Your task to perform on an android device: Open calendar and show me the first week of next month Image 0: 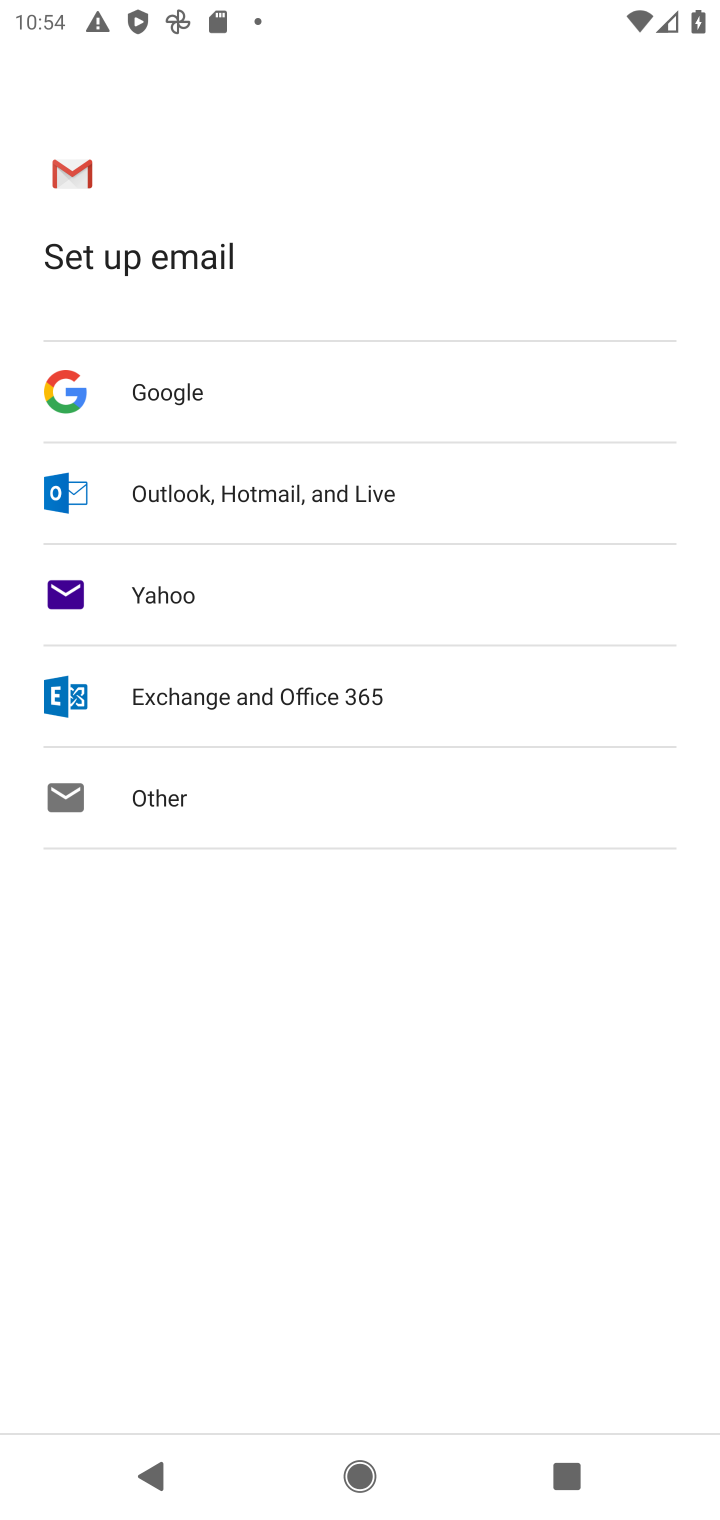
Step 0: press home button
Your task to perform on an android device: Open calendar and show me the first week of next month Image 1: 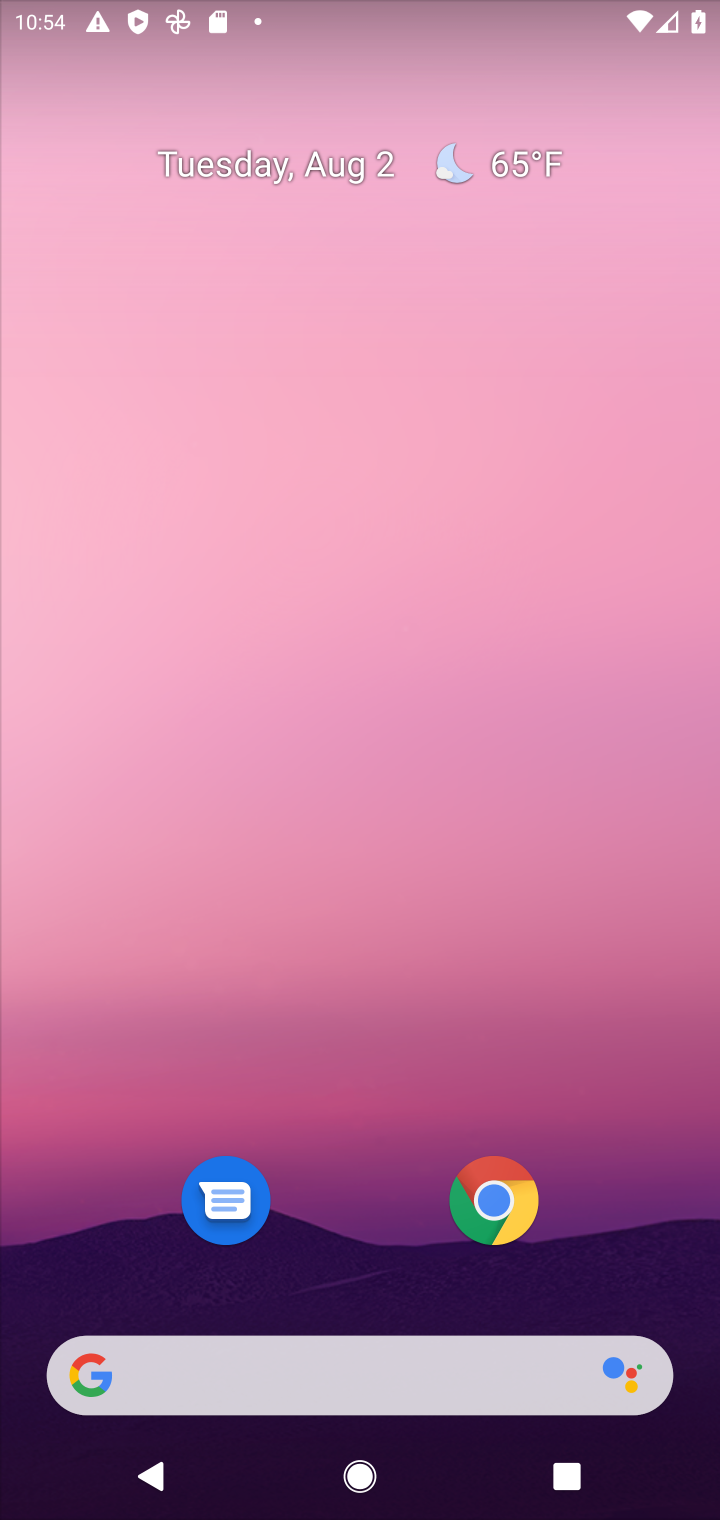
Step 1: drag from (672, 1298) to (574, 381)
Your task to perform on an android device: Open calendar and show me the first week of next month Image 2: 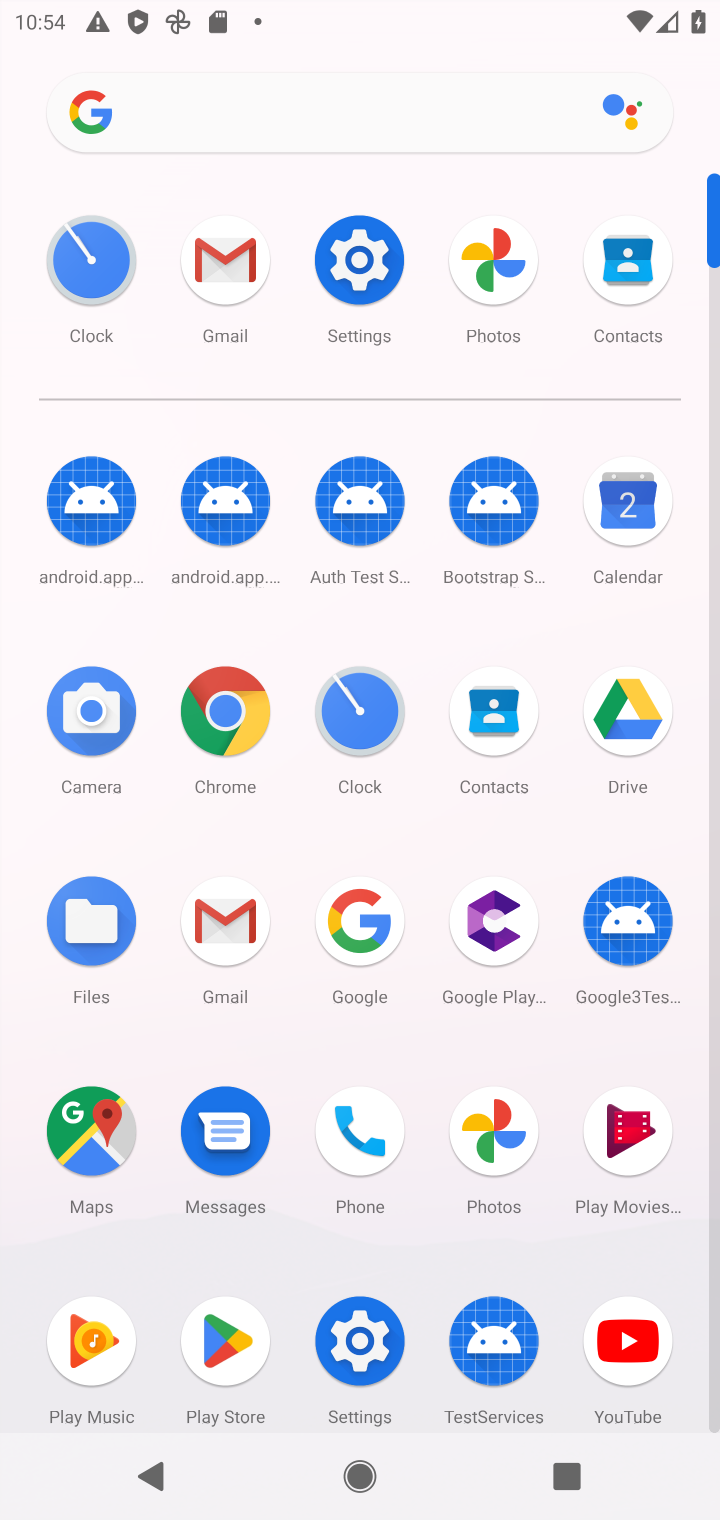
Step 2: click (635, 503)
Your task to perform on an android device: Open calendar and show me the first week of next month Image 3: 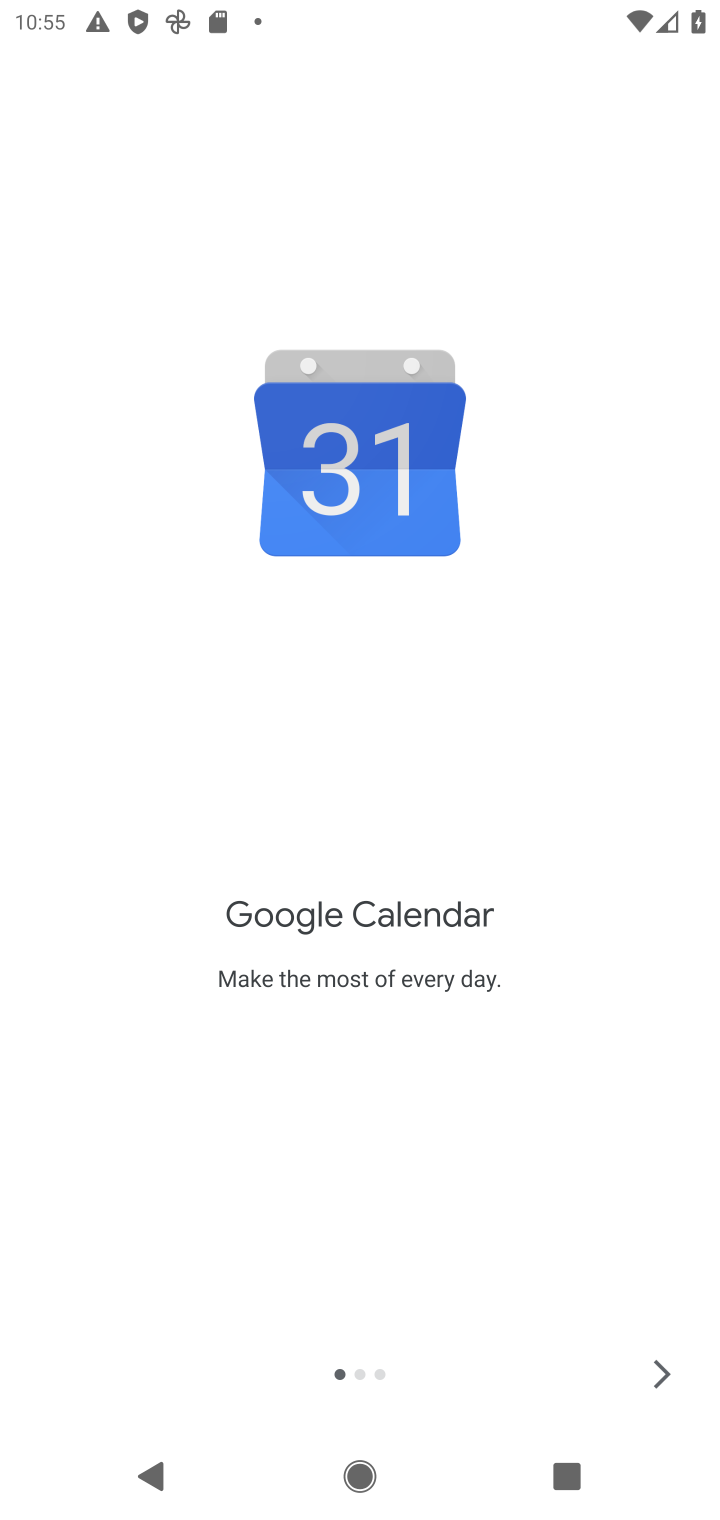
Step 3: click (656, 1371)
Your task to perform on an android device: Open calendar and show me the first week of next month Image 4: 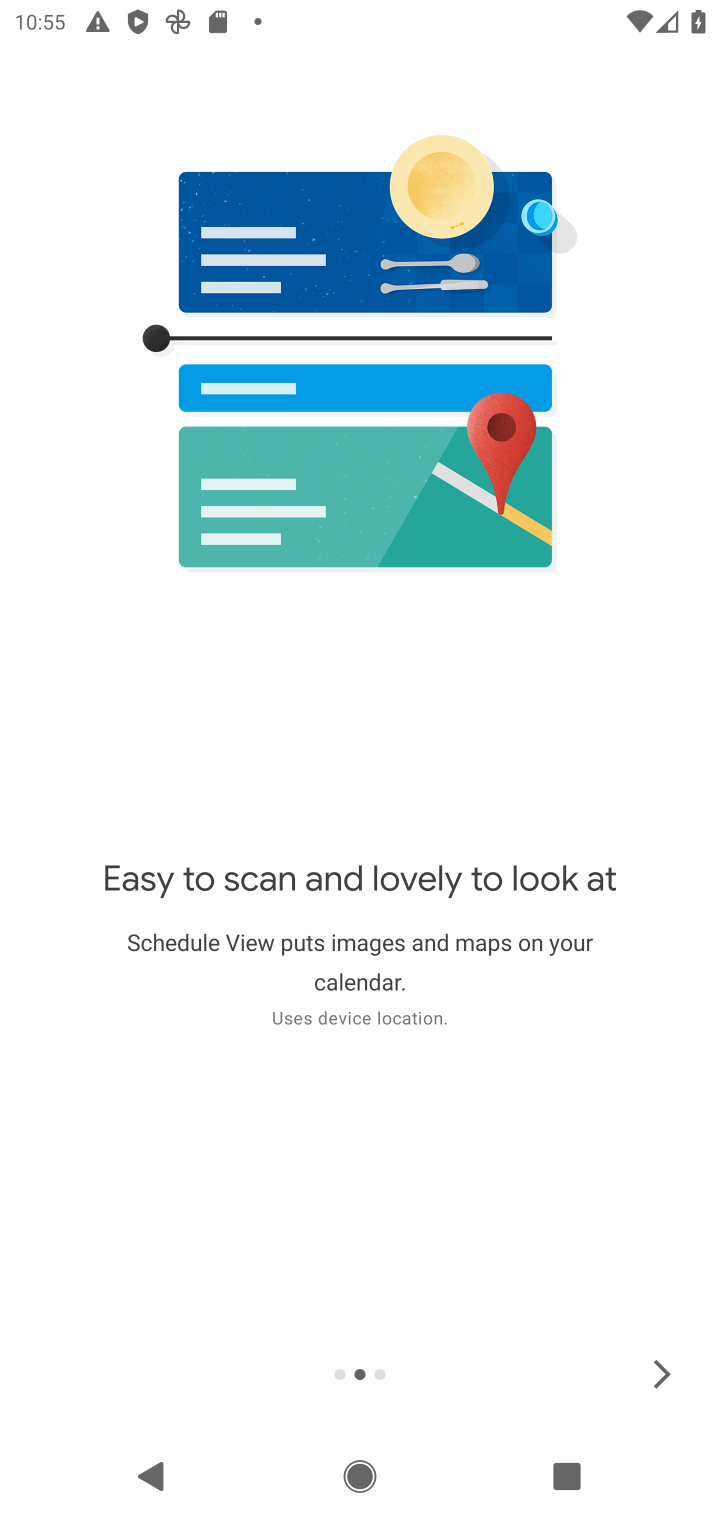
Step 4: click (656, 1371)
Your task to perform on an android device: Open calendar and show me the first week of next month Image 5: 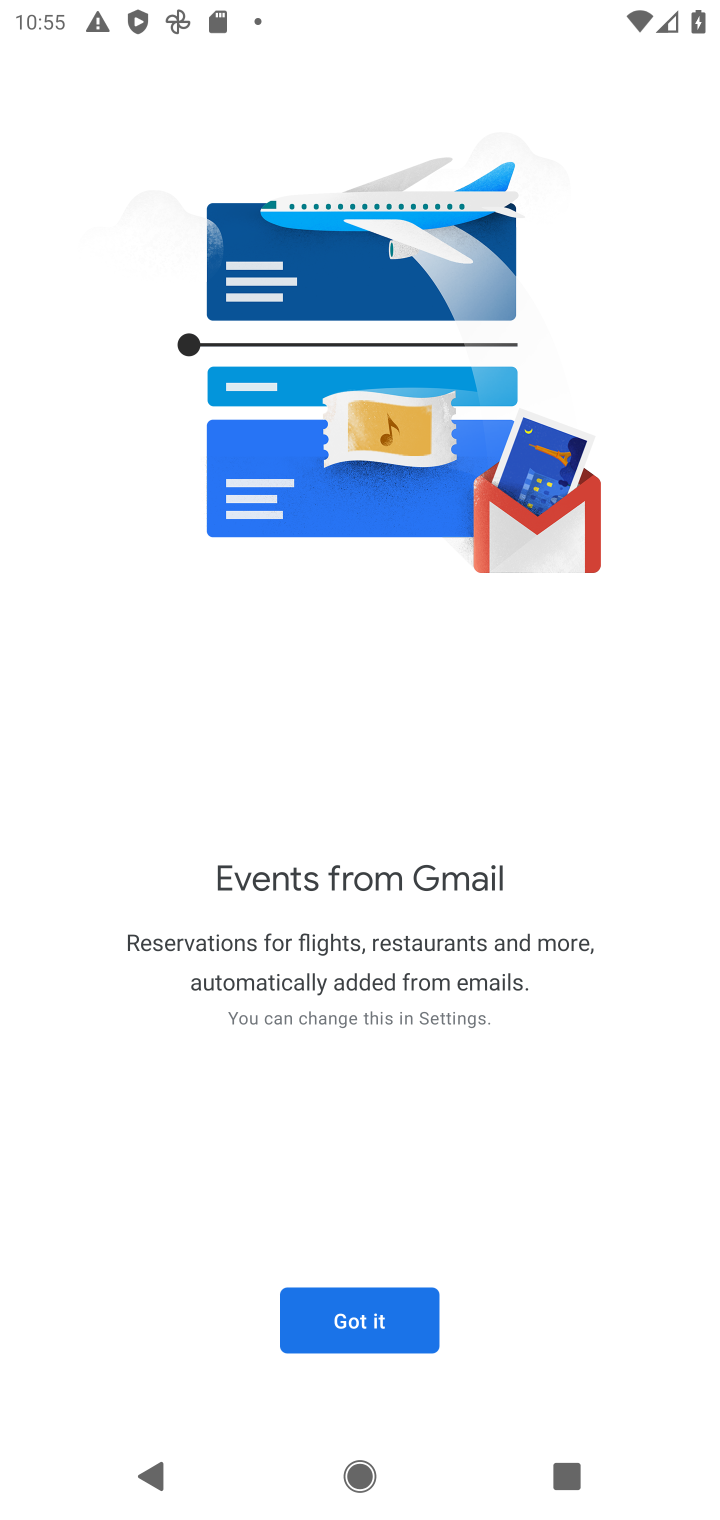
Step 5: click (352, 1323)
Your task to perform on an android device: Open calendar and show me the first week of next month Image 6: 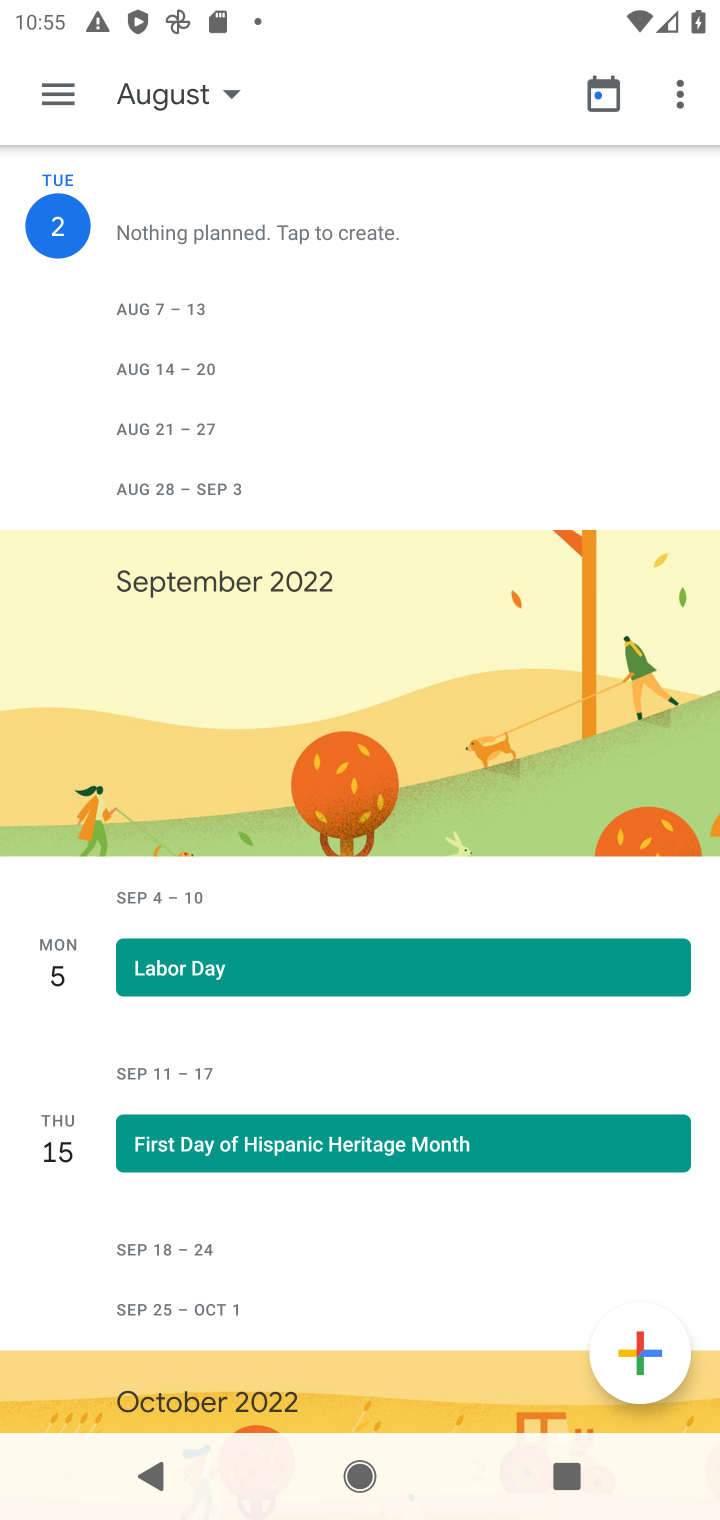
Step 6: click (55, 90)
Your task to perform on an android device: Open calendar and show me the first week of next month Image 7: 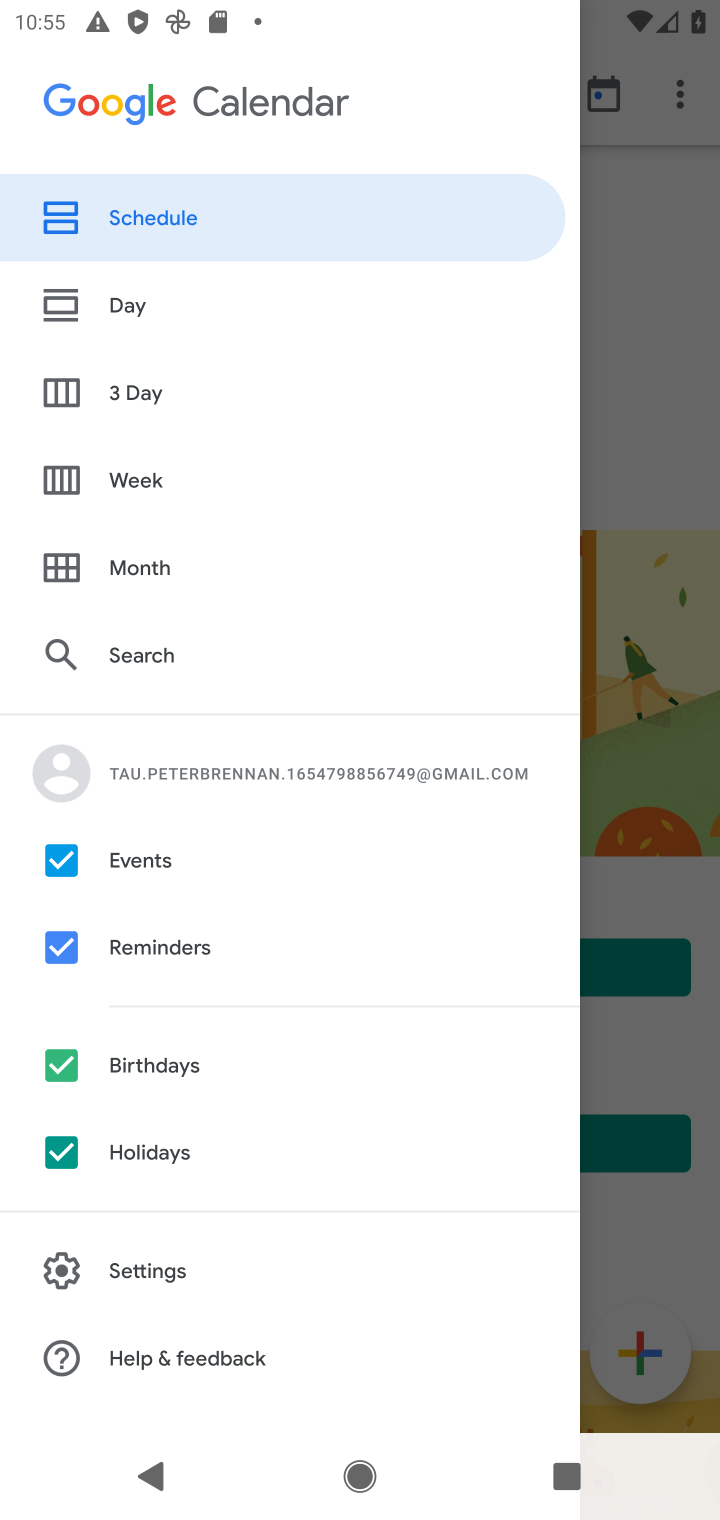
Step 7: click (117, 484)
Your task to perform on an android device: Open calendar and show me the first week of next month Image 8: 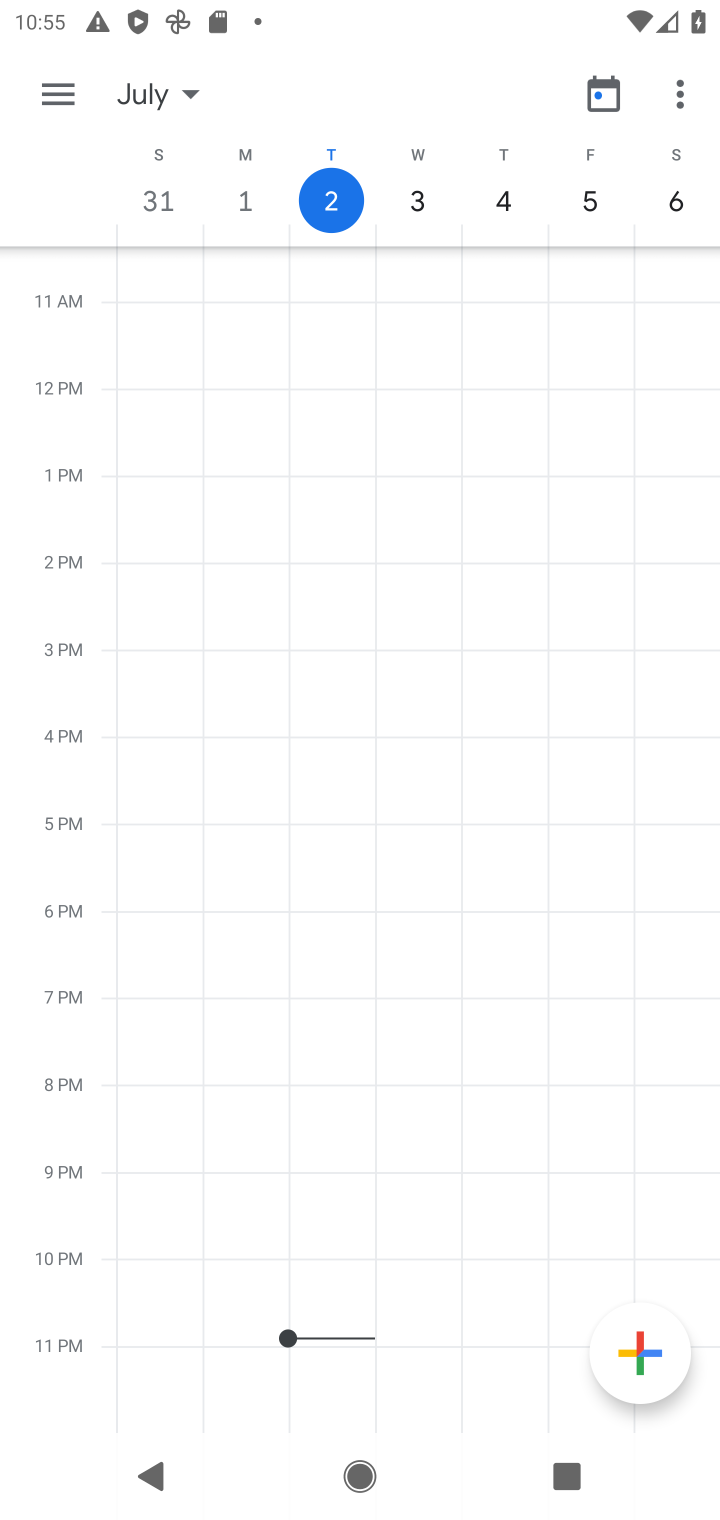
Step 8: click (188, 77)
Your task to perform on an android device: Open calendar and show me the first week of next month Image 9: 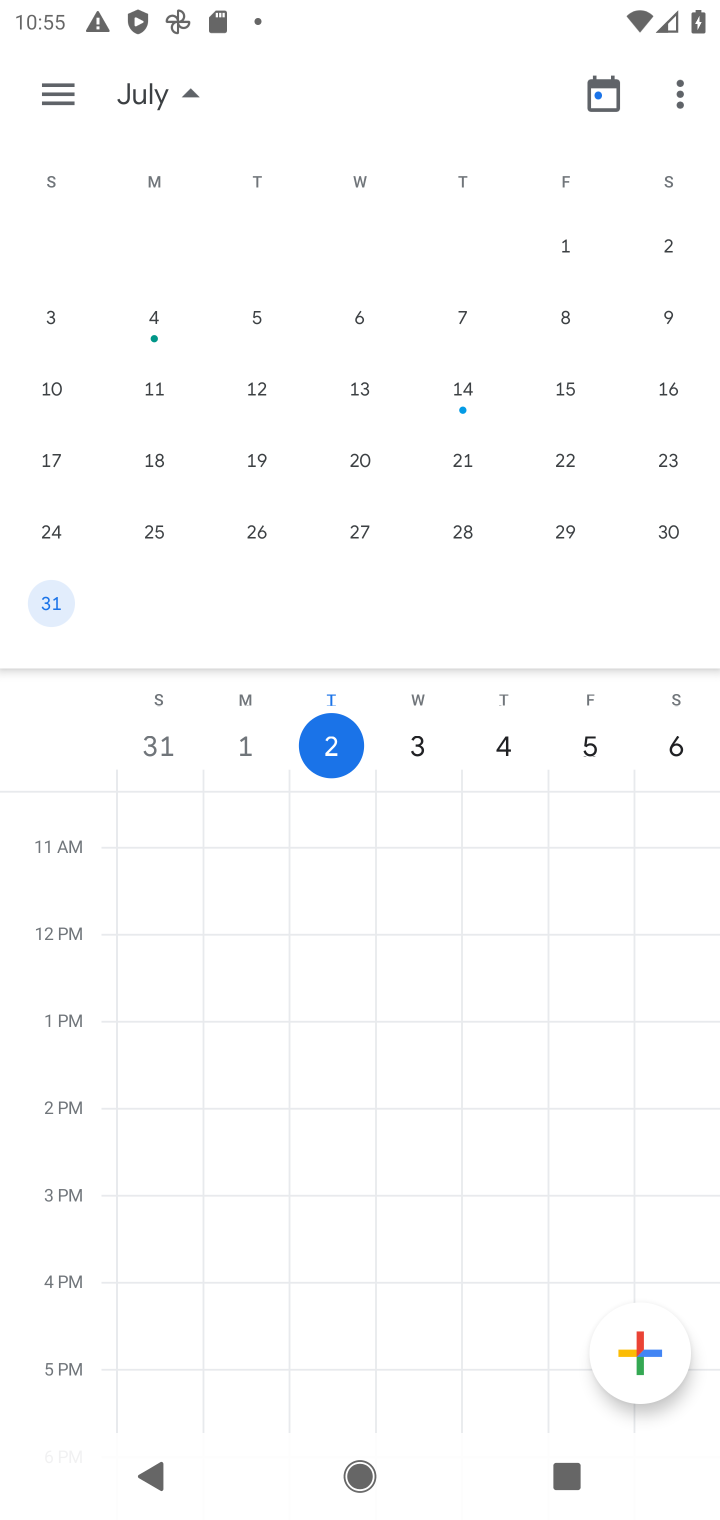
Step 9: drag from (660, 465) to (10, 470)
Your task to perform on an android device: Open calendar and show me the first week of next month Image 10: 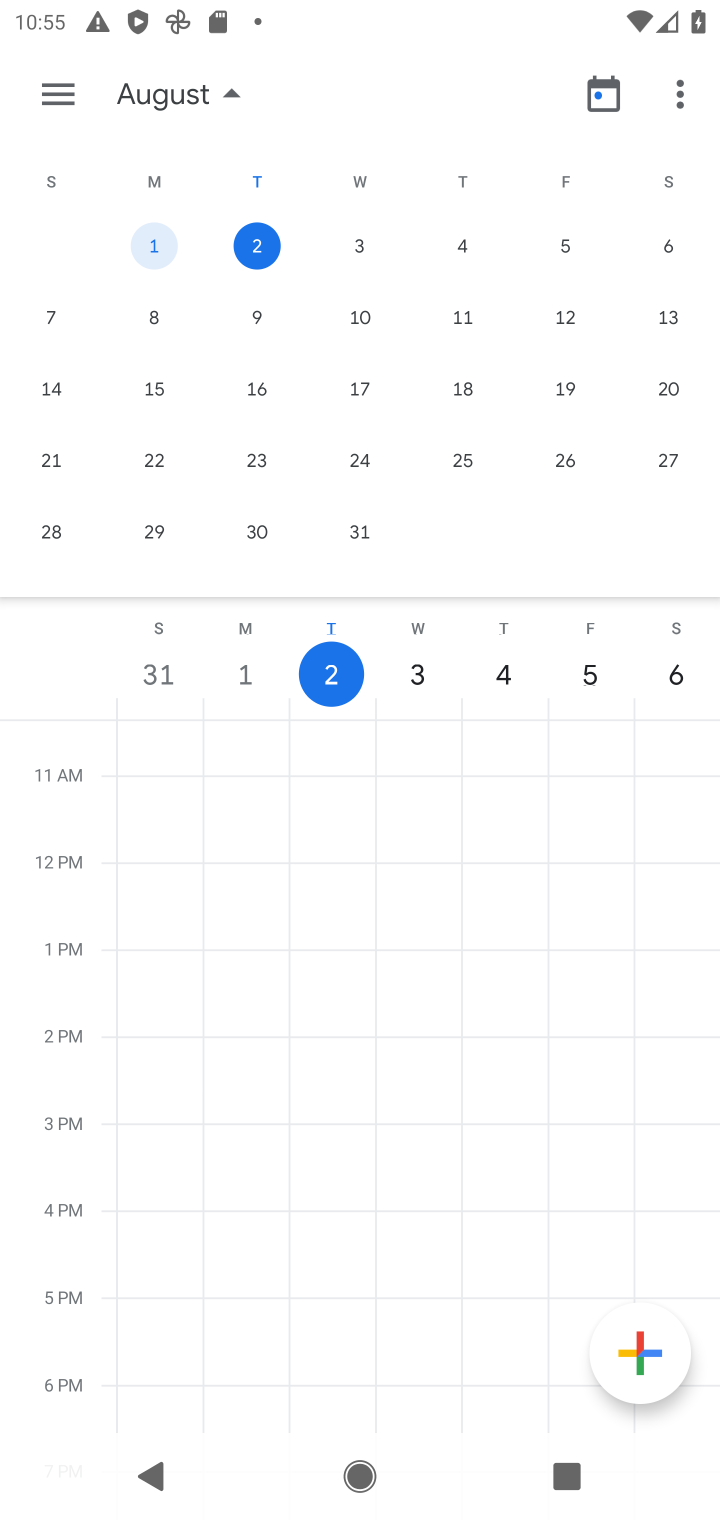
Step 10: click (60, 311)
Your task to perform on an android device: Open calendar and show me the first week of next month Image 11: 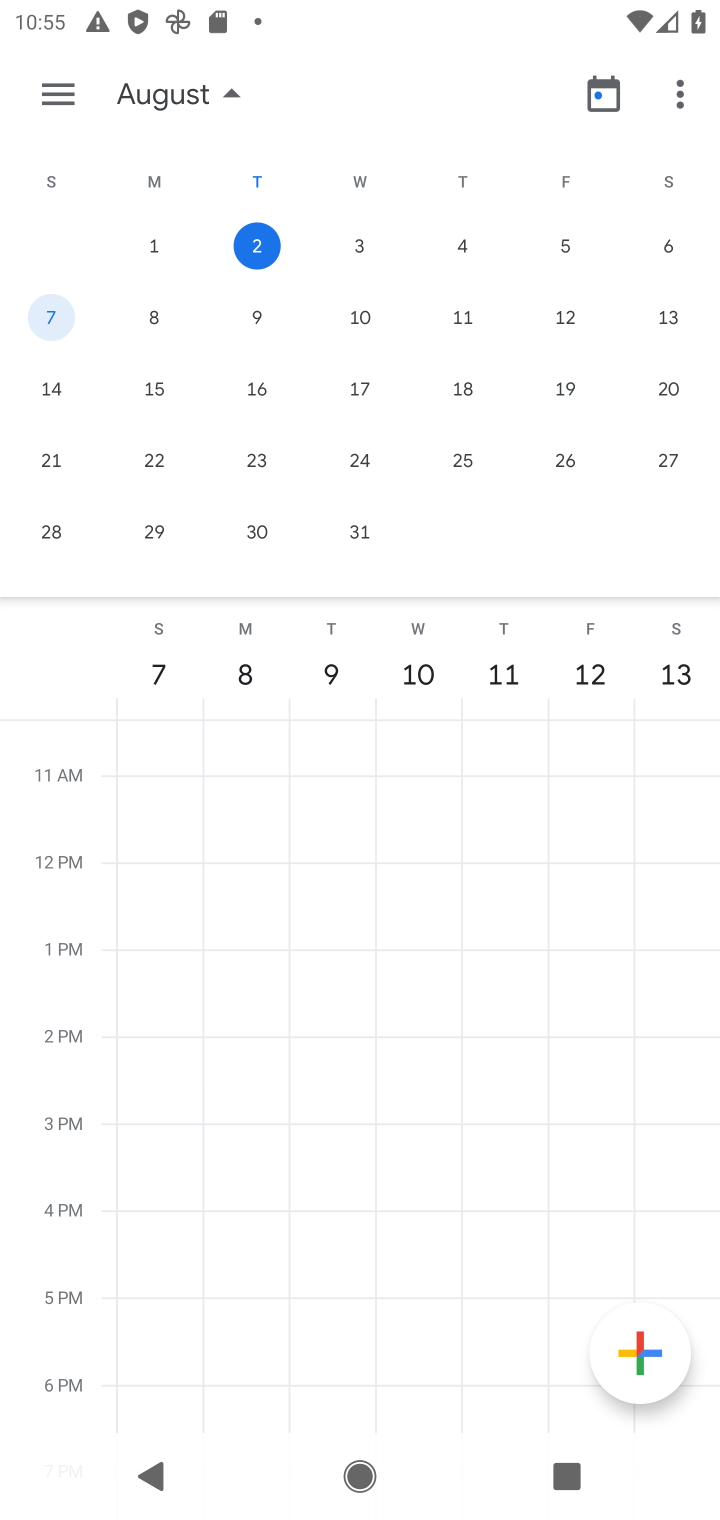
Step 11: drag from (372, 1166) to (383, 541)
Your task to perform on an android device: Open calendar and show me the first week of next month Image 12: 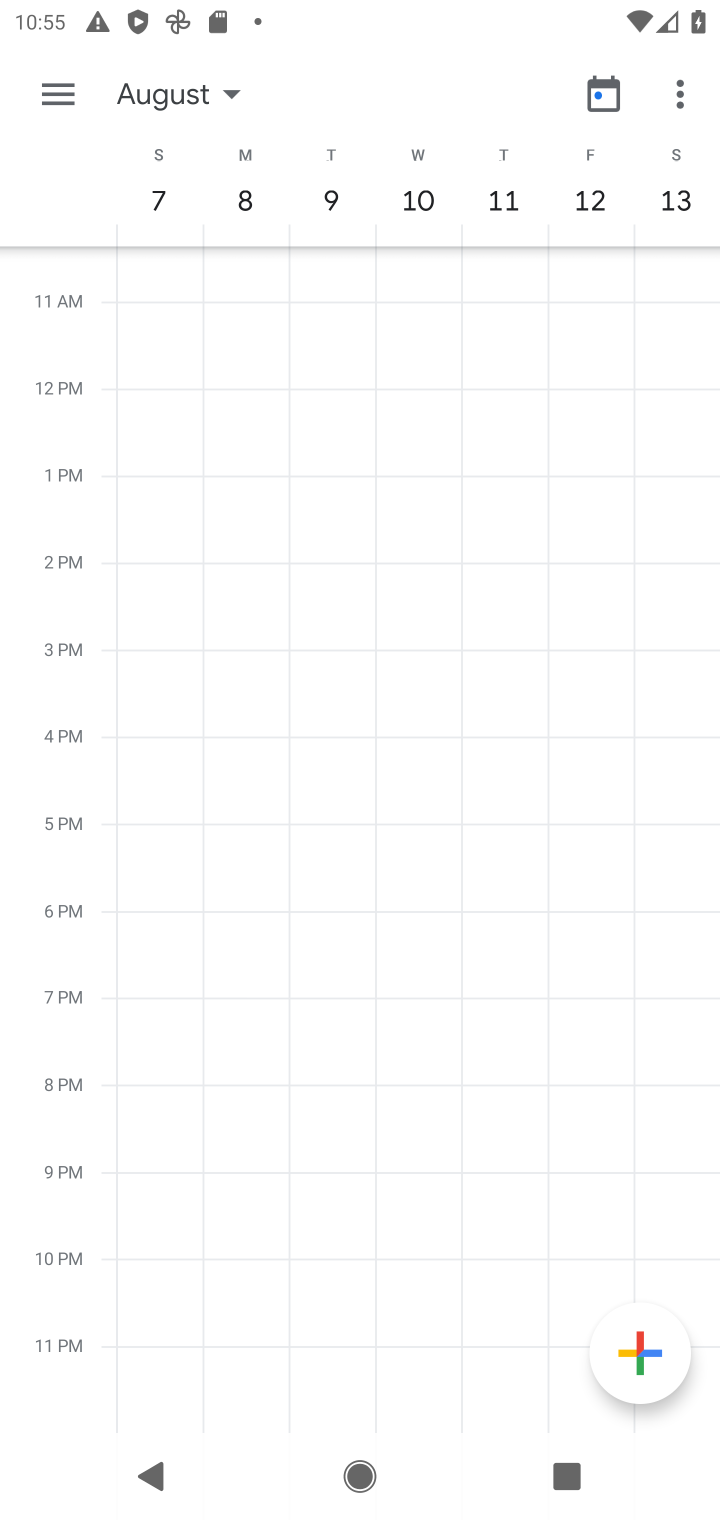
Step 12: click (383, 541)
Your task to perform on an android device: Open calendar and show me the first week of next month Image 13: 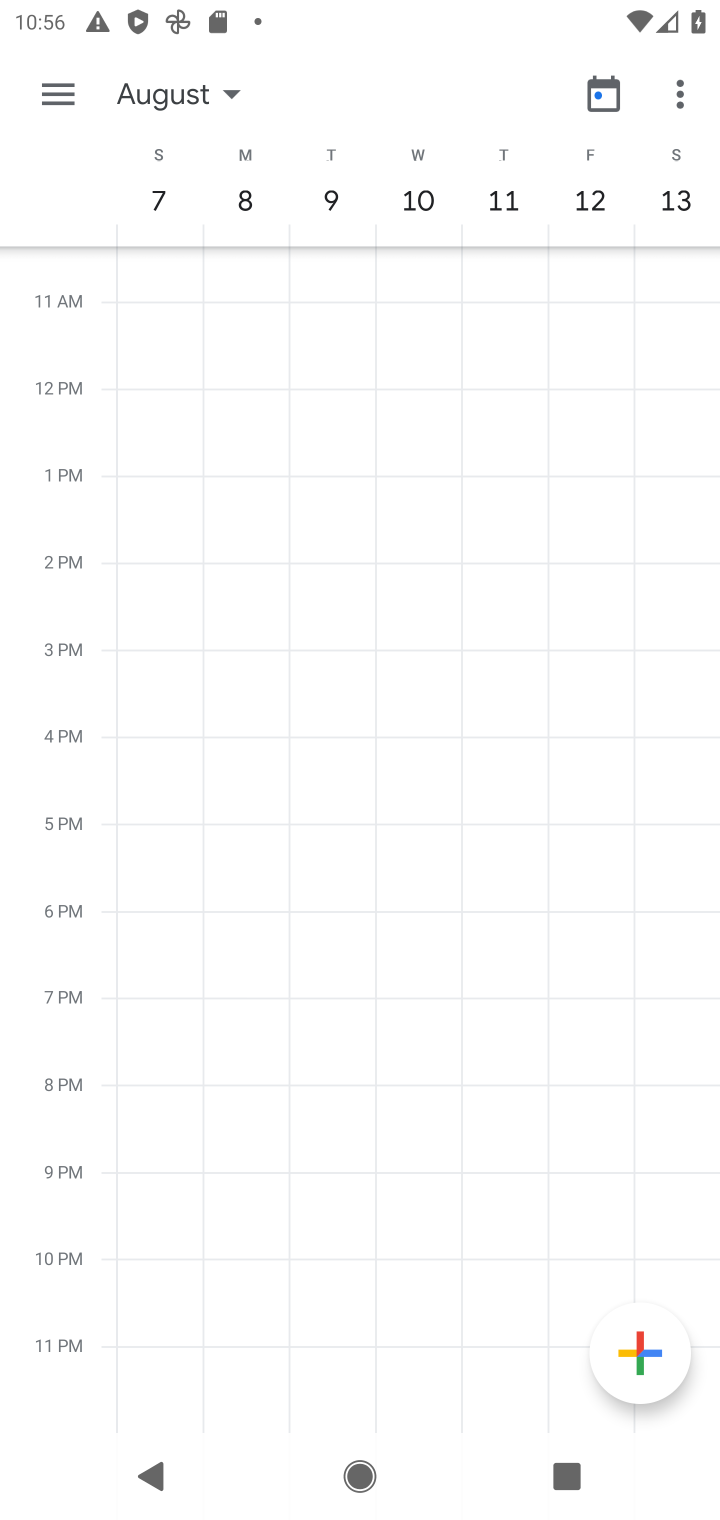
Step 13: task complete